Your task to perform on an android device: Go to eBay Image 0: 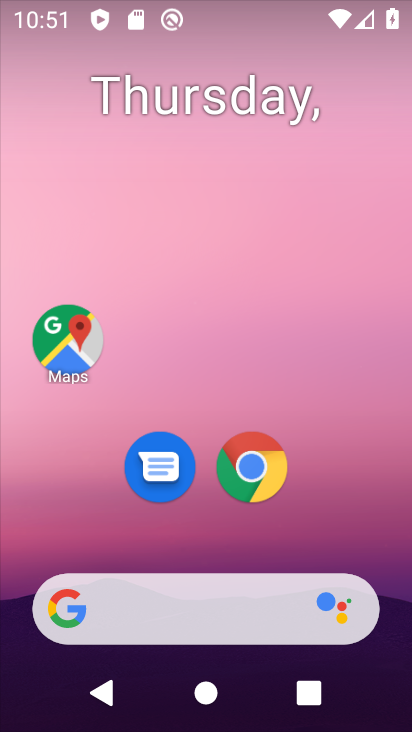
Step 0: drag from (243, 534) to (269, 153)
Your task to perform on an android device: Go to eBay Image 1: 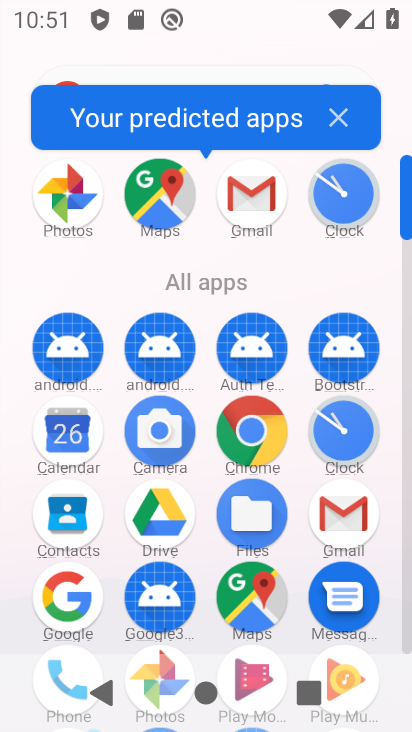
Step 1: click (272, 440)
Your task to perform on an android device: Go to eBay Image 2: 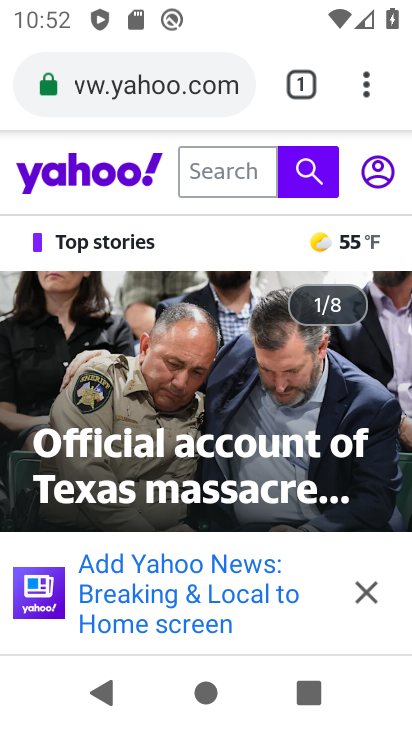
Step 2: click (303, 92)
Your task to perform on an android device: Go to eBay Image 3: 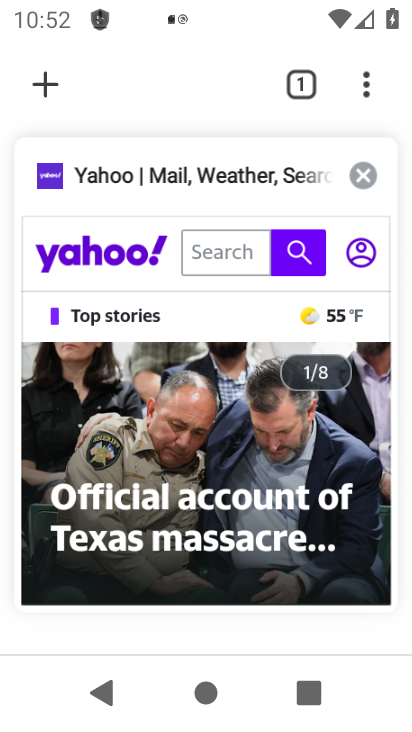
Step 3: click (46, 90)
Your task to perform on an android device: Go to eBay Image 4: 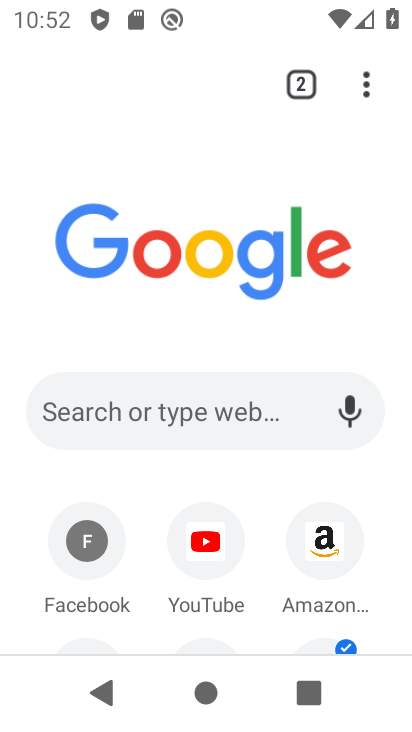
Step 4: click (195, 400)
Your task to perform on an android device: Go to eBay Image 5: 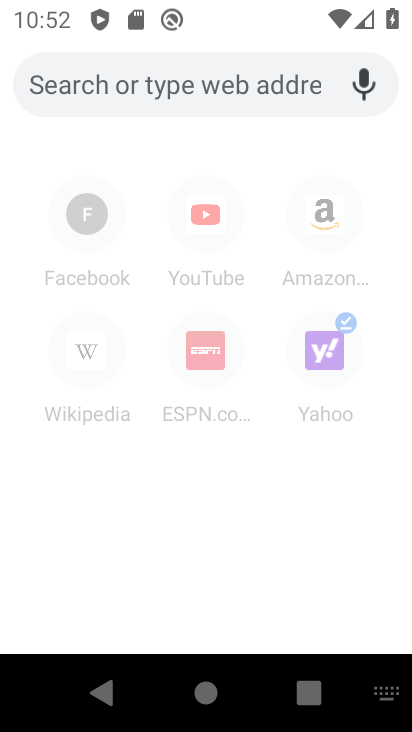
Step 5: type "ebay"
Your task to perform on an android device: Go to eBay Image 6: 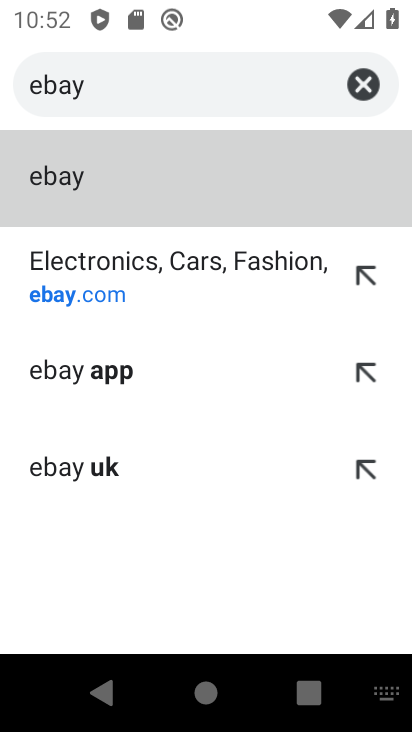
Step 6: click (197, 277)
Your task to perform on an android device: Go to eBay Image 7: 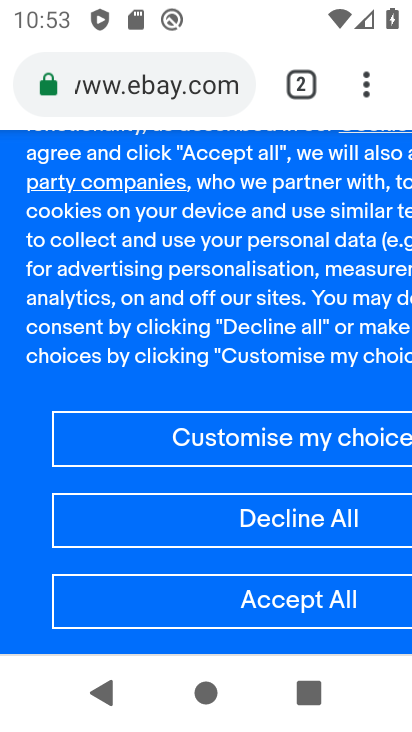
Step 7: task complete